Your task to perform on an android device: Is it going to rain this weekend? Image 0: 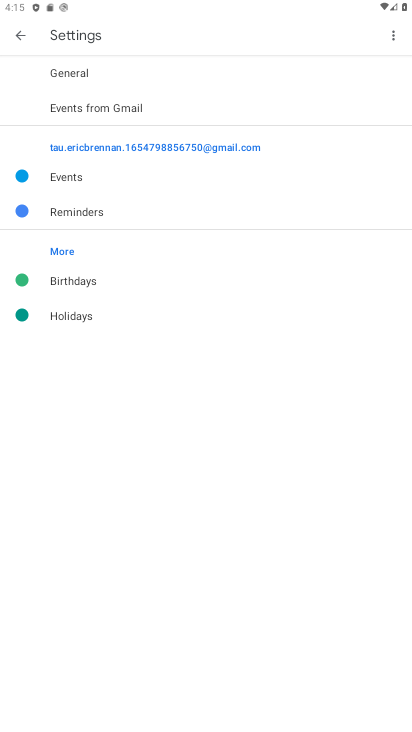
Step 0: press home button
Your task to perform on an android device: Is it going to rain this weekend? Image 1: 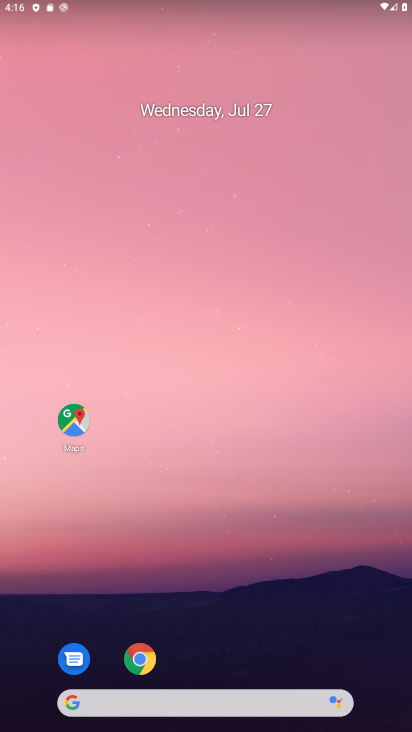
Step 1: click (130, 667)
Your task to perform on an android device: Is it going to rain this weekend? Image 2: 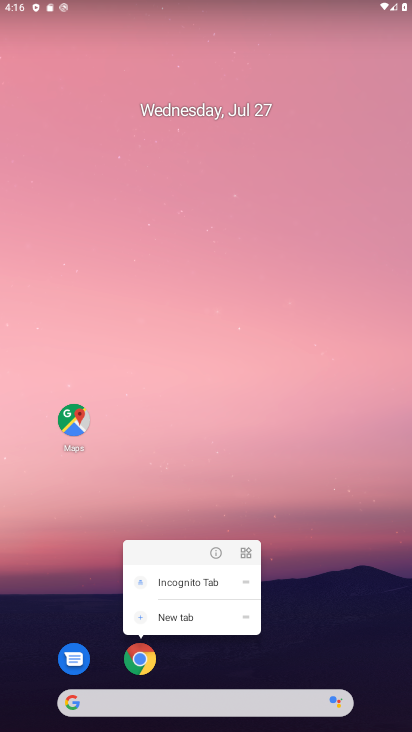
Step 2: click (139, 655)
Your task to perform on an android device: Is it going to rain this weekend? Image 3: 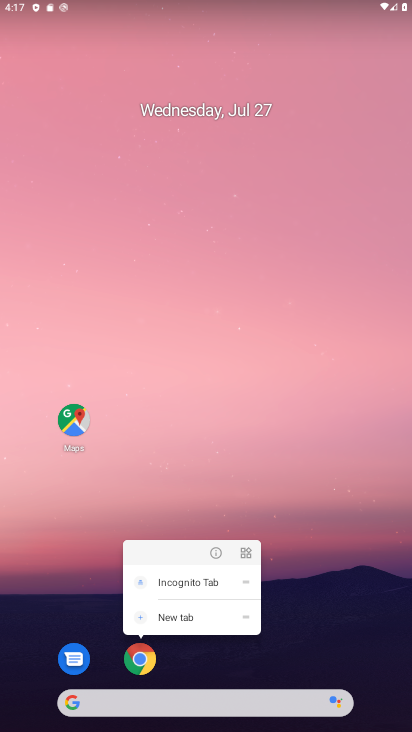
Step 3: click (153, 658)
Your task to perform on an android device: Is it going to rain this weekend? Image 4: 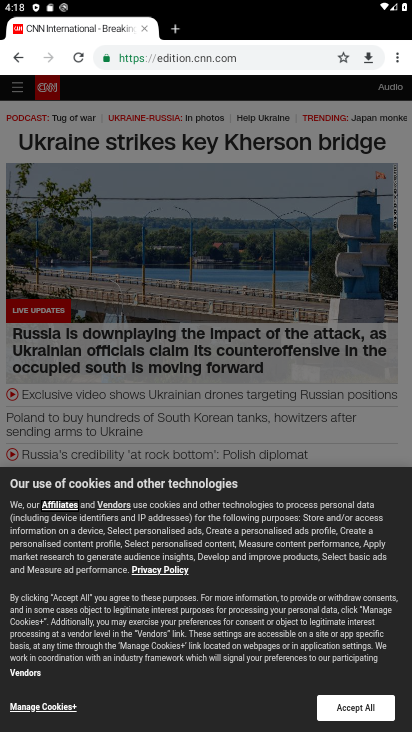
Step 4: click (161, 58)
Your task to perform on an android device: Is it going to rain this weekend? Image 5: 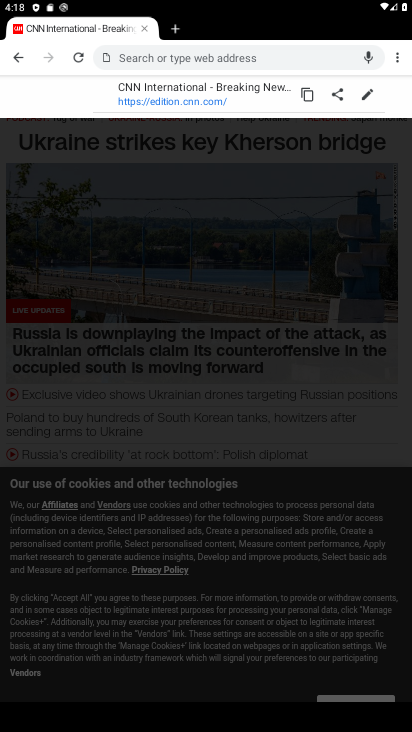
Step 5: type "Is it going to rain this weekend?"
Your task to perform on an android device: Is it going to rain this weekend? Image 6: 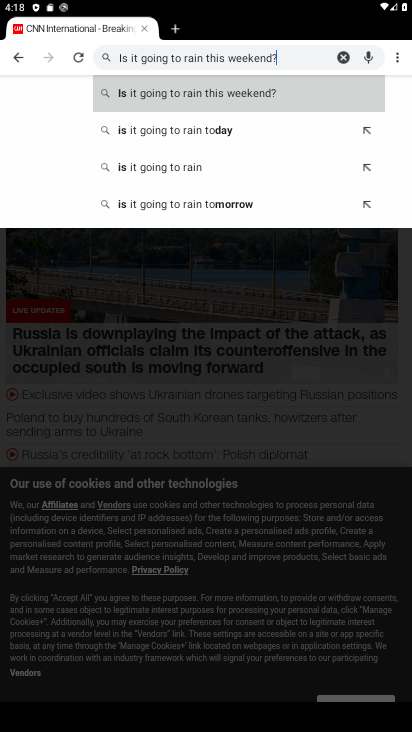
Step 6: type ""
Your task to perform on an android device: Is it going to rain this weekend? Image 7: 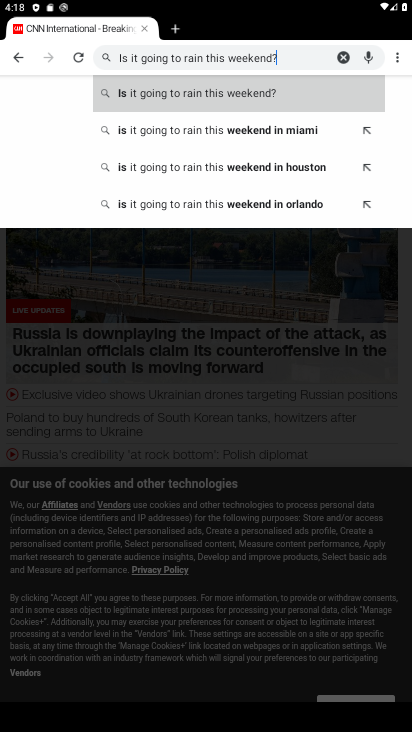
Step 7: click (297, 99)
Your task to perform on an android device: Is it going to rain this weekend? Image 8: 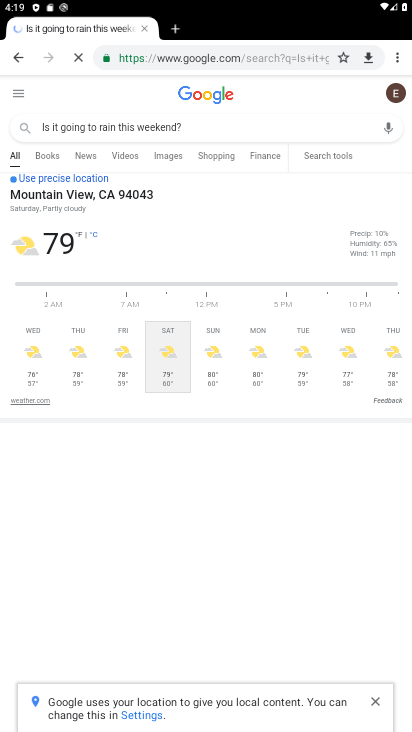
Step 8: task complete